Your task to perform on an android device: change keyboard looks Image 0: 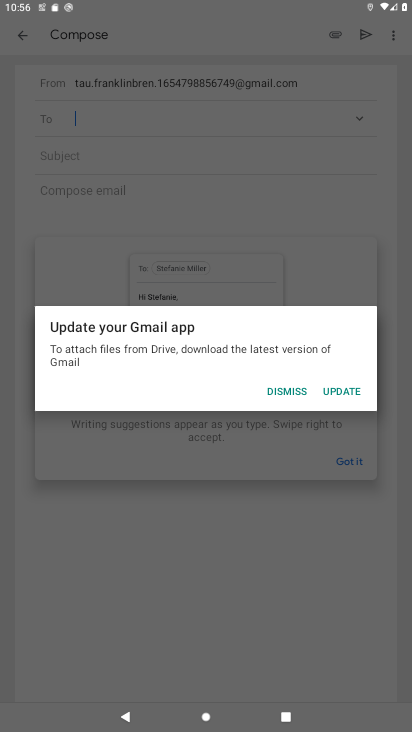
Step 0: press home button
Your task to perform on an android device: change keyboard looks Image 1: 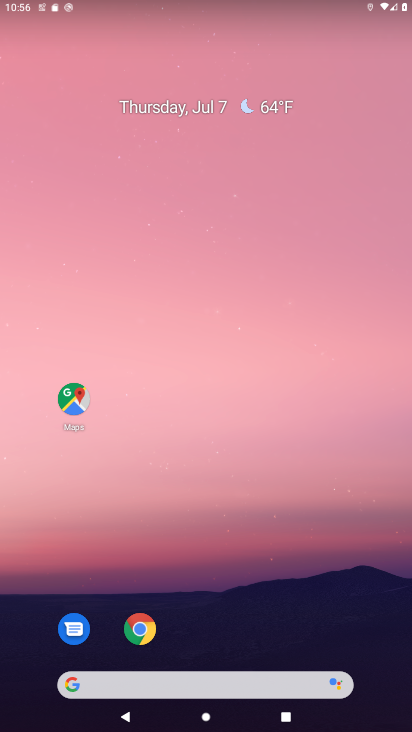
Step 1: drag from (239, 640) to (231, 89)
Your task to perform on an android device: change keyboard looks Image 2: 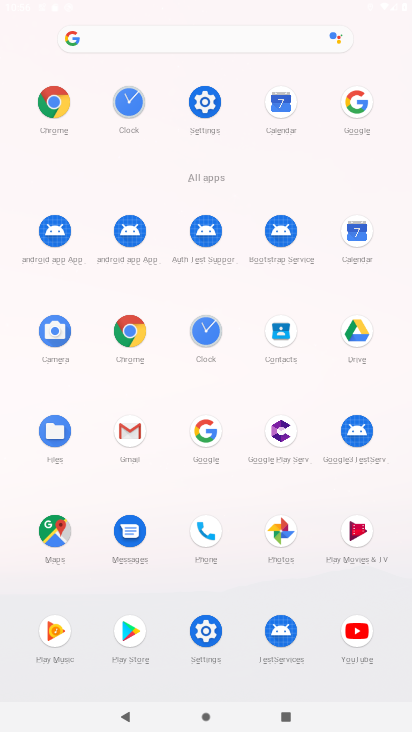
Step 2: click (204, 629)
Your task to perform on an android device: change keyboard looks Image 3: 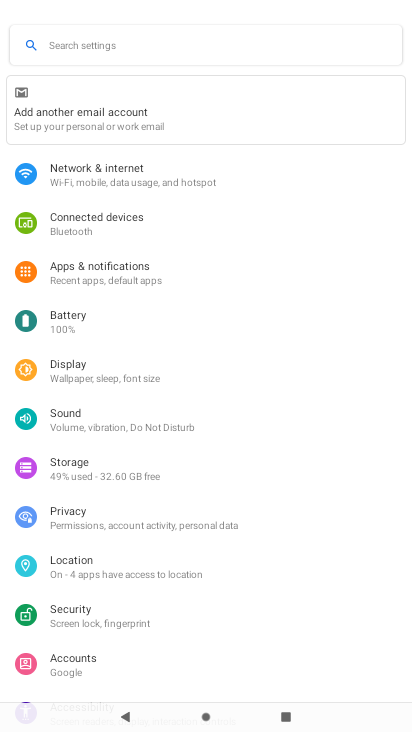
Step 3: drag from (110, 409) to (128, 363)
Your task to perform on an android device: change keyboard looks Image 4: 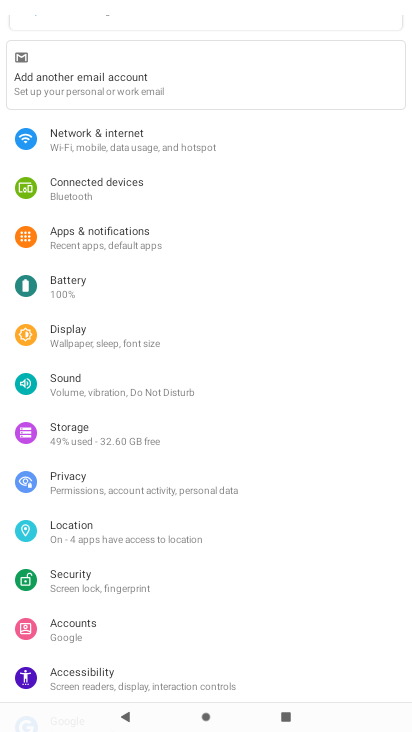
Step 4: drag from (105, 559) to (143, 483)
Your task to perform on an android device: change keyboard looks Image 5: 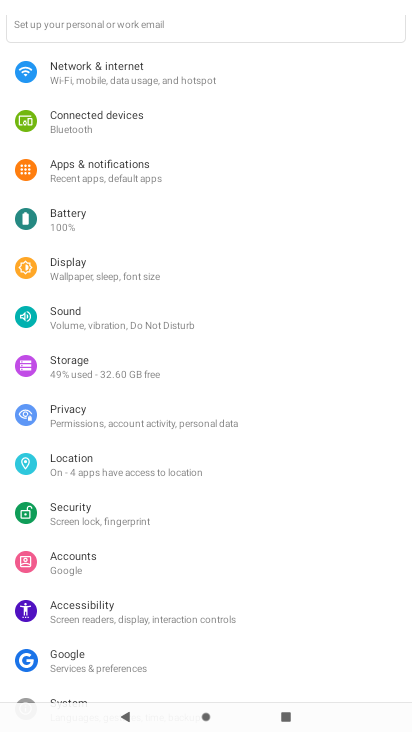
Step 5: drag from (106, 579) to (194, 478)
Your task to perform on an android device: change keyboard looks Image 6: 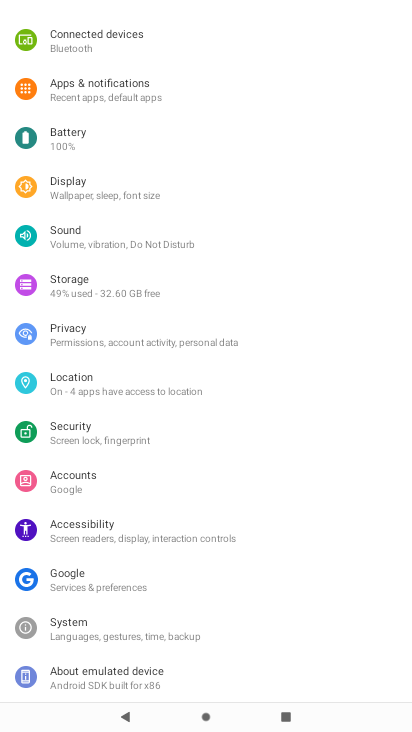
Step 6: drag from (138, 558) to (226, 452)
Your task to perform on an android device: change keyboard looks Image 7: 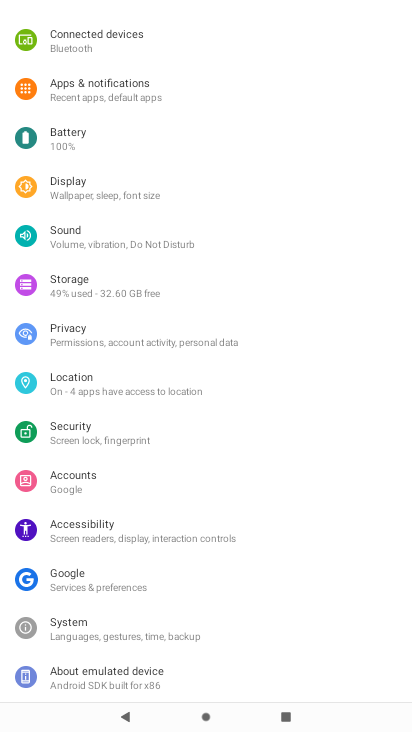
Step 7: click (124, 633)
Your task to perform on an android device: change keyboard looks Image 8: 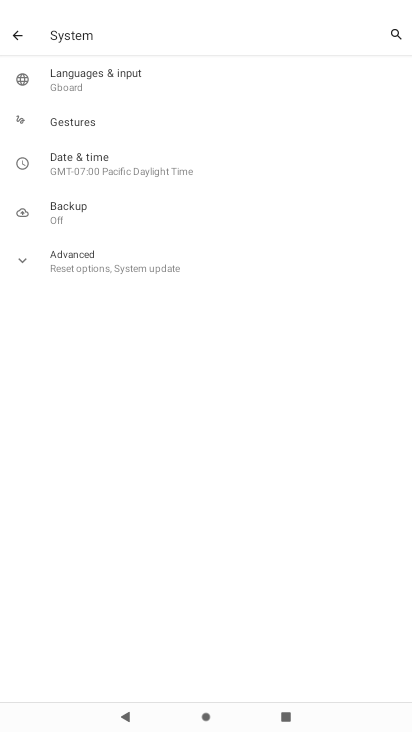
Step 8: click (98, 72)
Your task to perform on an android device: change keyboard looks Image 9: 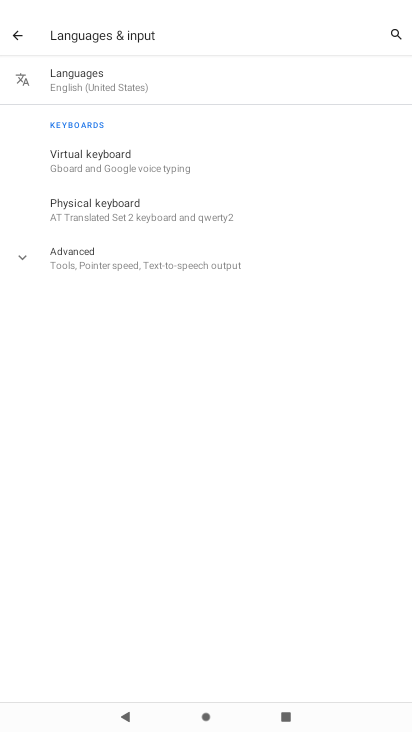
Step 9: click (122, 156)
Your task to perform on an android device: change keyboard looks Image 10: 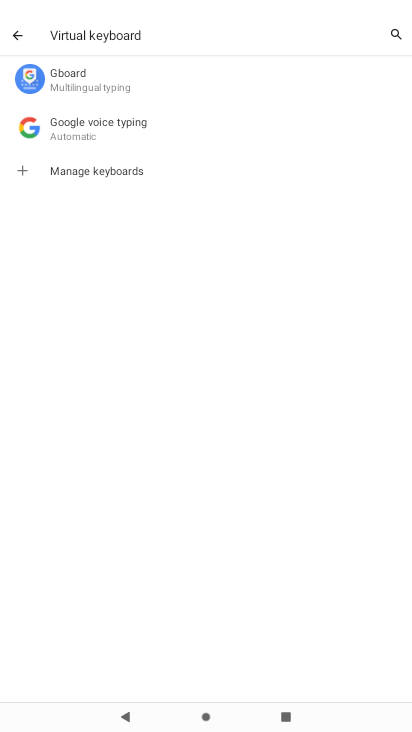
Step 10: click (79, 76)
Your task to perform on an android device: change keyboard looks Image 11: 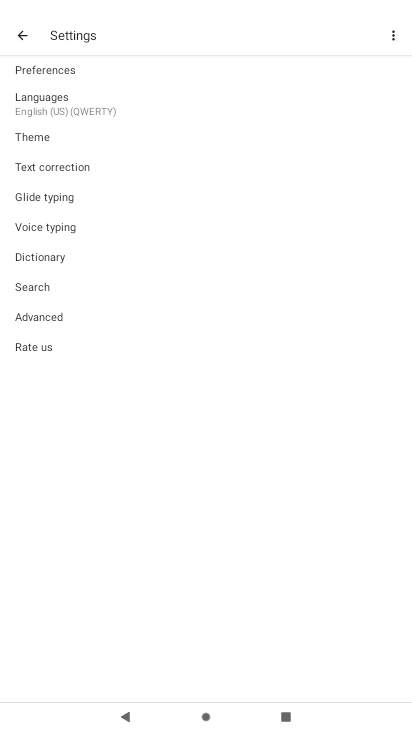
Step 11: click (38, 142)
Your task to perform on an android device: change keyboard looks Image 12: 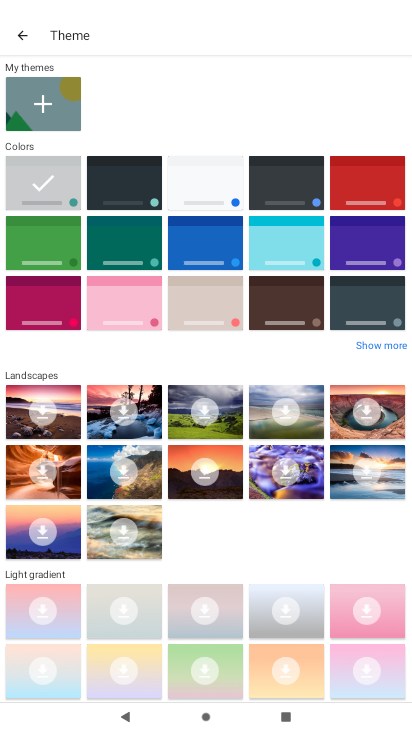
Step 12: click (365, 193)
Your task to perform on an android device: change keyboard looks Image 13: 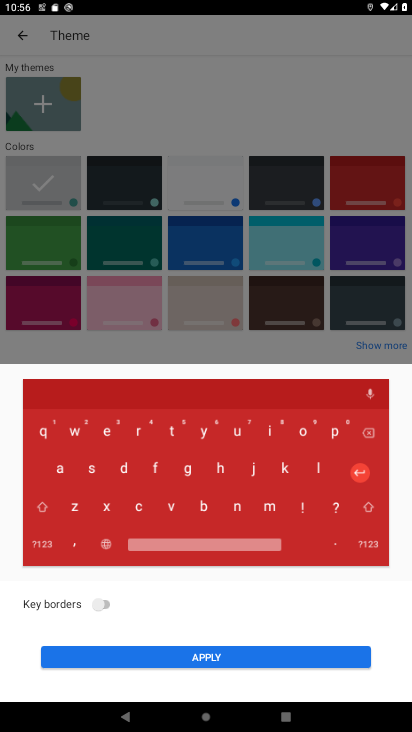
Step 13: click (211, 661)
Your task to perform on an android device: change keyboard looks Image 14: 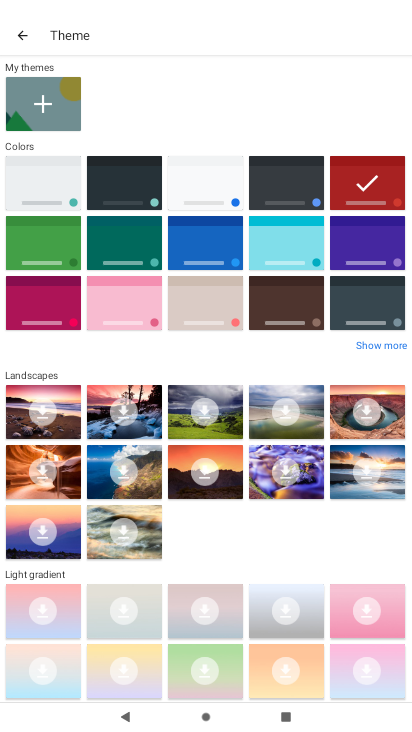
Step 14: task complete